Your task to perform on an android device: see sites visited before in the chrome app Image 0: 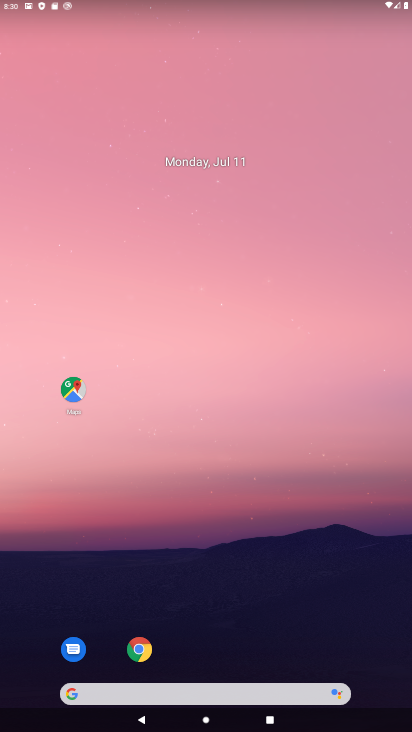
Step 0: click (139, 646)
Your task to perform on an android device: see sites visited before in the chrome app Image 1: 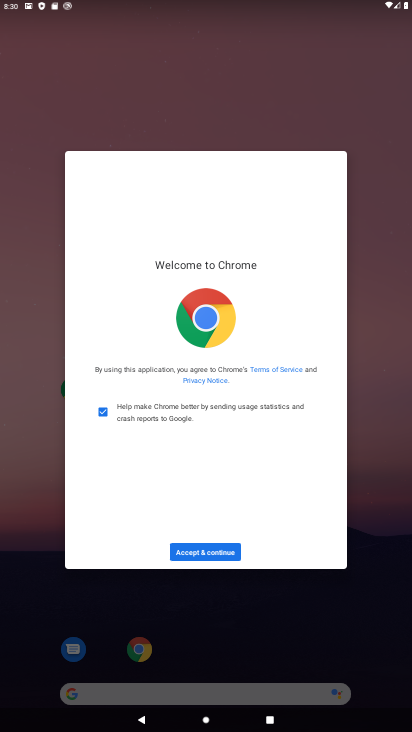
Step 1: click (204, 552)
Your task to perform on an android device: see sites visited before in the chrome app Image 2: 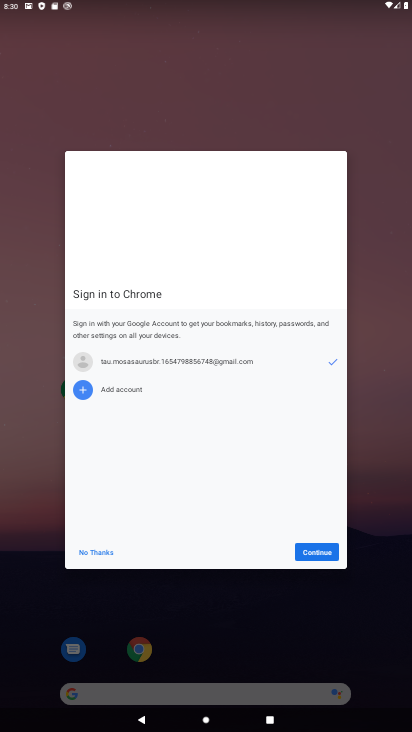
Step 2: click (310, 549)
Your task to perform on an android device: see sites visited before in the chrome app Image 3: 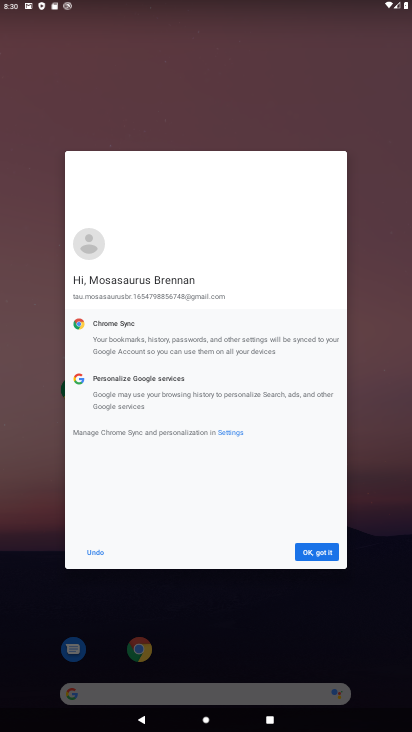
Step 3: click (312, 554)
Your task to perform on an android device: see sites visited before in the chrome app Image 4: 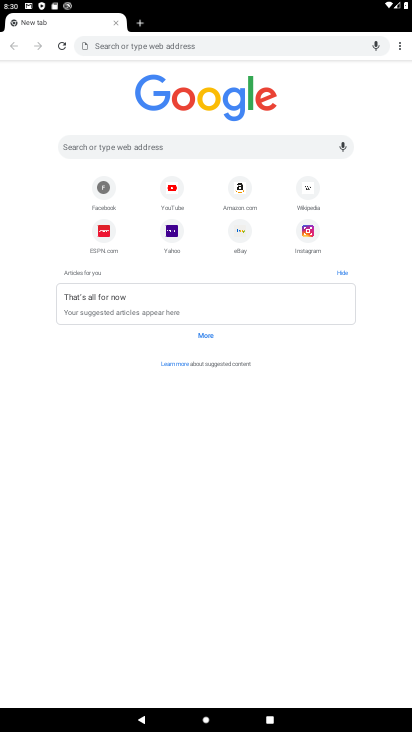
Step 4: click (398, 47)
Your task to perform on an android device: see sites visited before in the chrome app Image 5: 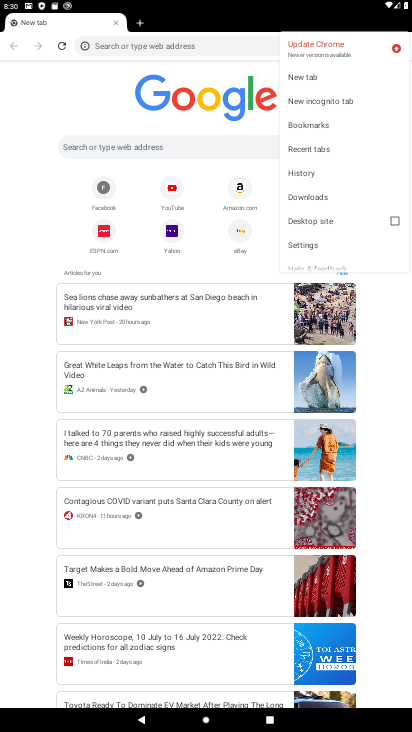
Step 5: click (309, 171)
Your task to perform on an android device: see sites visited before in the chrome app Image 6: 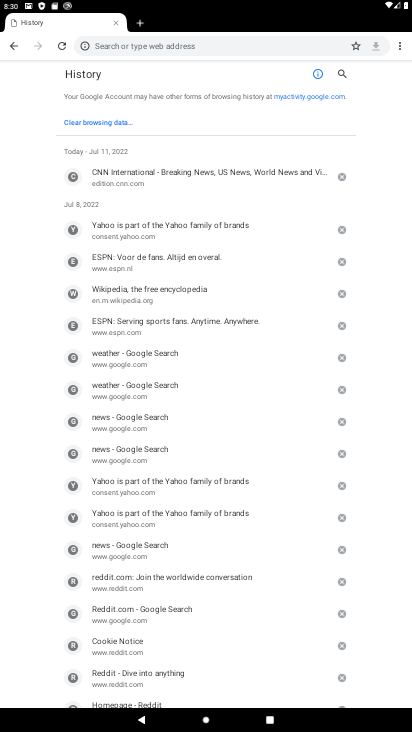
Step 6: task complete